Your task to perform on an android device: Open accessibility settings Image 0: 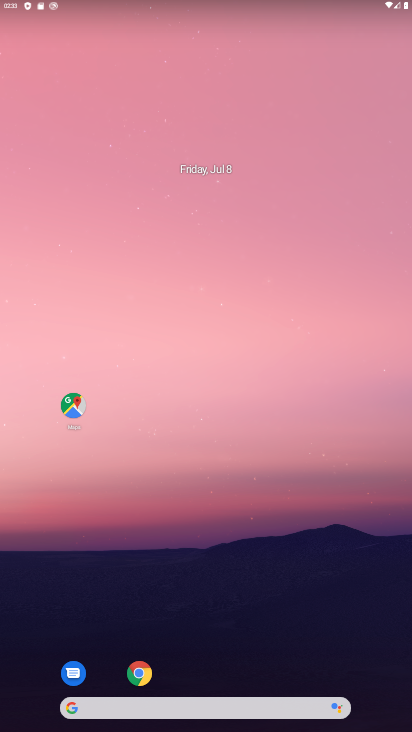
Step 0: drag from (265, 659) to (275, 270)
Your task to perform on an android device: Open accessibility settings Image 1: 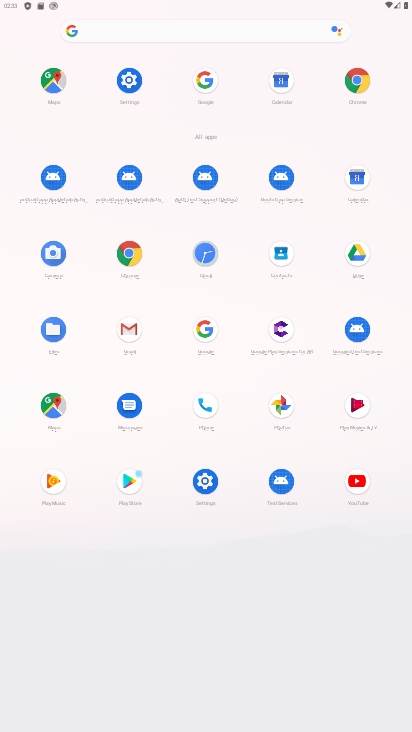
Step 1: click (138, 71)
Your task to perform on an android device: Open accessibility settings Image 2: 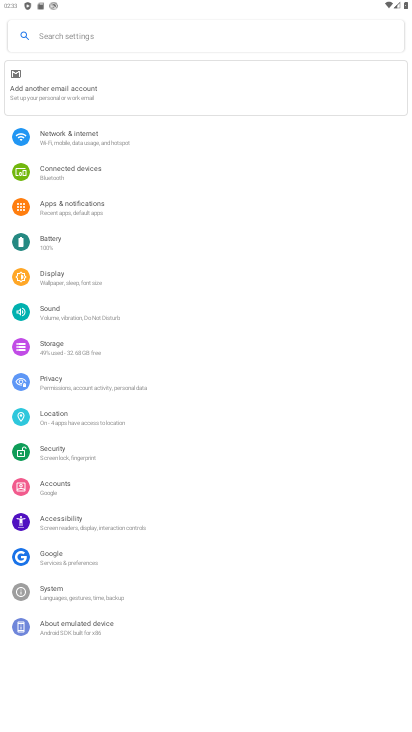
Step 2: click (59, 532)
Your task to perform on an android device: Open accessibility settings Image 3: 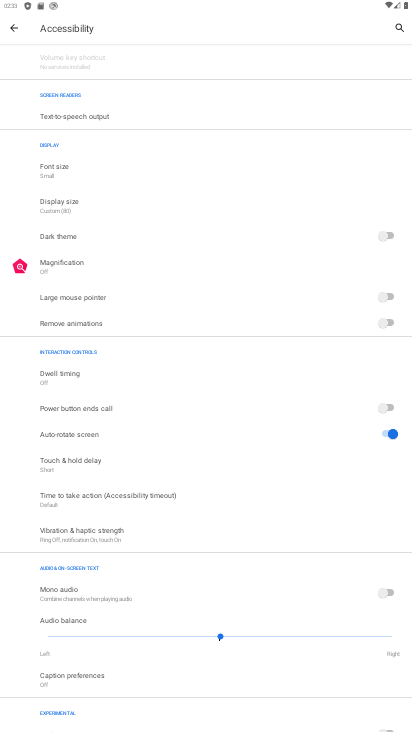
Step 3: task complete